Your task to perform on an android device: Go to ESPN.com Image 0: 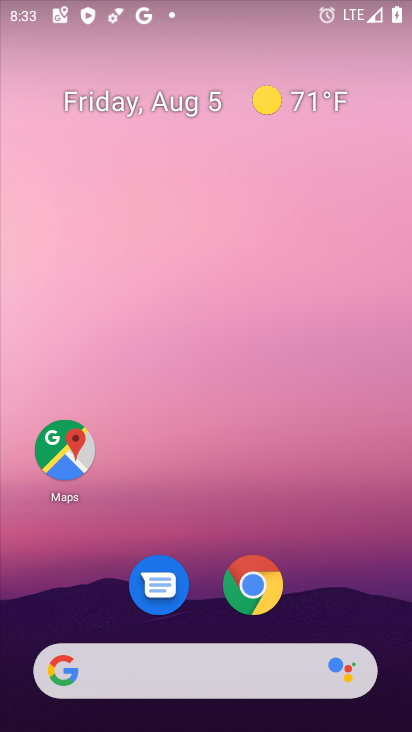
Step 0: click (215, 676)
Your task to perform on an android device: Go to ESPN.com Image 1: 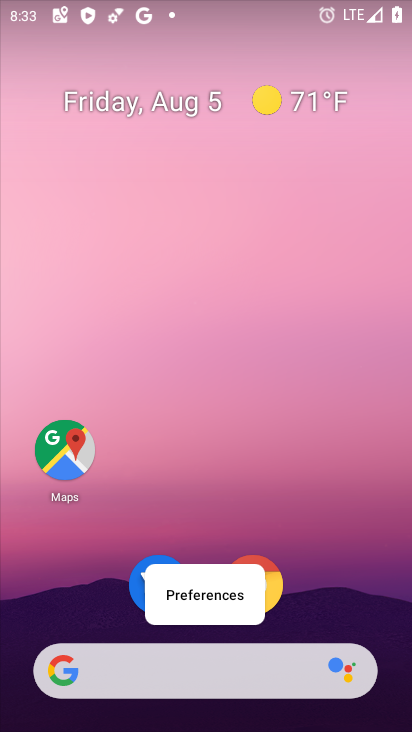
Step 1: click (215, 678)
Your task to perform on an android device: Go to ESPN.com Image 2: 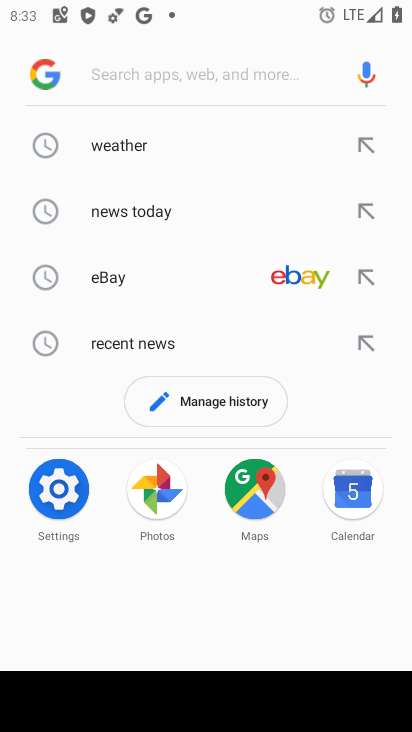
Step 2: type "espn.com"
Your task to perform on an android device: Go to ESPN.com Image 3: 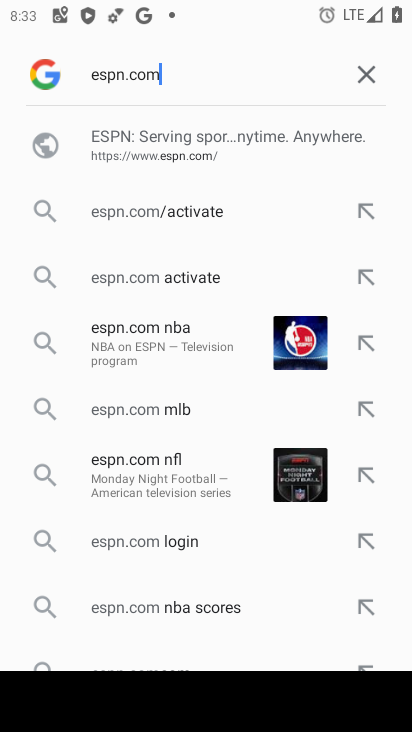
Step 3: click (253, 133)
Your task to perform on an android device: Go to ESPN.com Image 4: 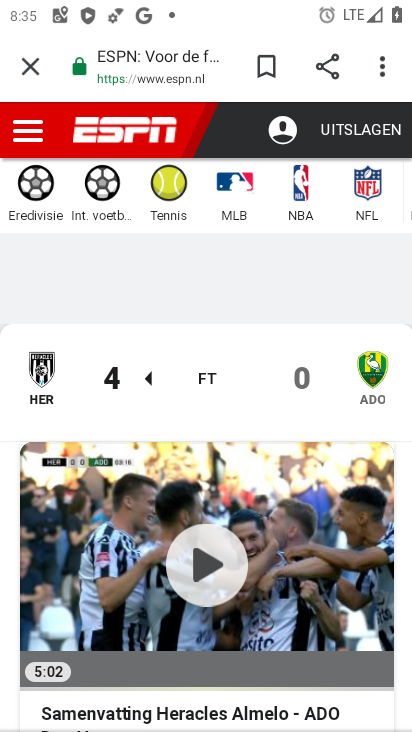
Step 4: task complete